Your task to perform on an android device: turn on showing notifications on the lock screen Image 0: 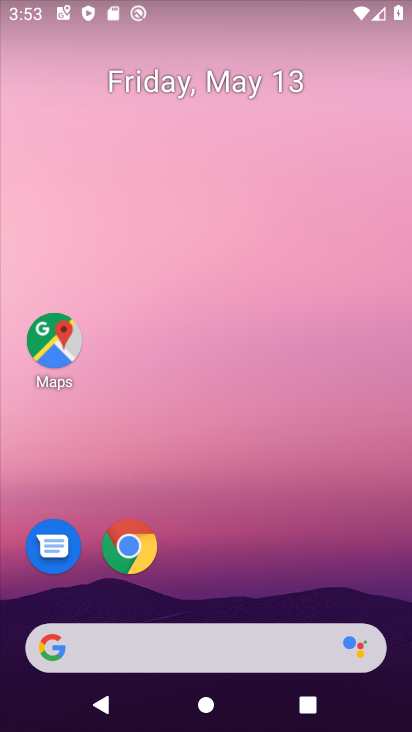
Step 0: drag from (329, 182) to (400, 259)
Your task to perform on an android device: turn on showing notifications on the lock screen Image 1: 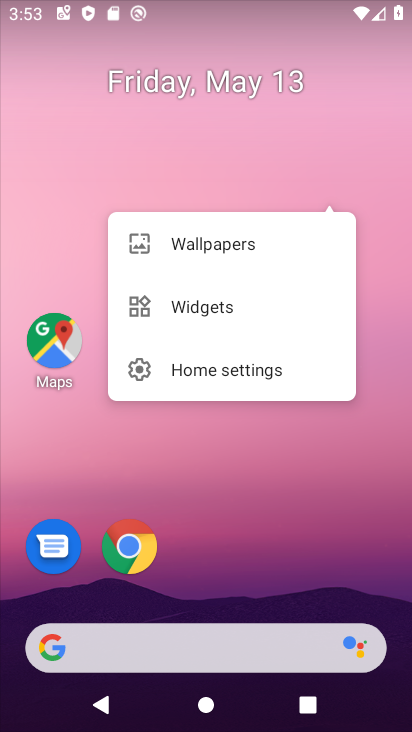
Step 1: click (292, 425)
Your task to perform on an android device: turn on showing notifications on the lock screen Image 2: 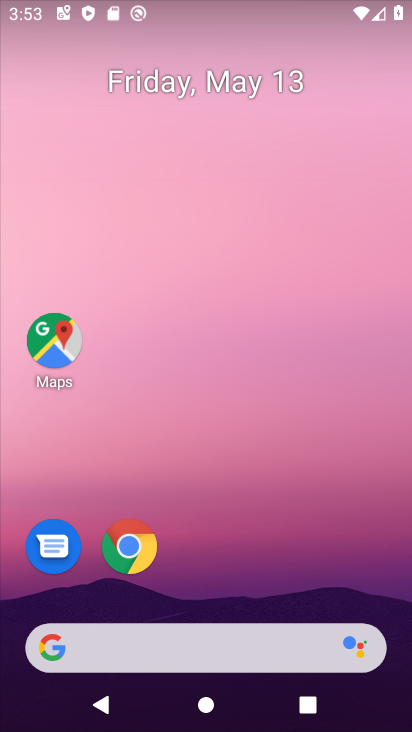
Step 2: drag from (212, 576) to (235, 2)
Your task to perform on an android device: turn on showing notifications on the lock screen Image 3: 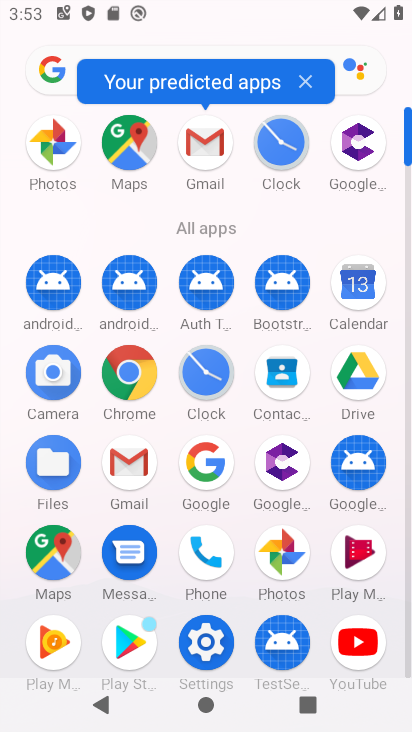
Step 3: click (210, 641)
Your task to perform on an android device: turn on showing notifications on the lock screen Image 4: 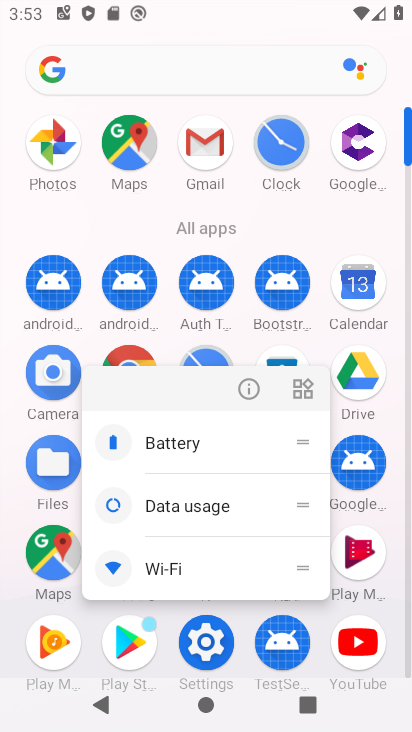
Step 4: click (210, 622)
Your task to perform on an android device: turn on showing notifications on the lock screen Image 5: 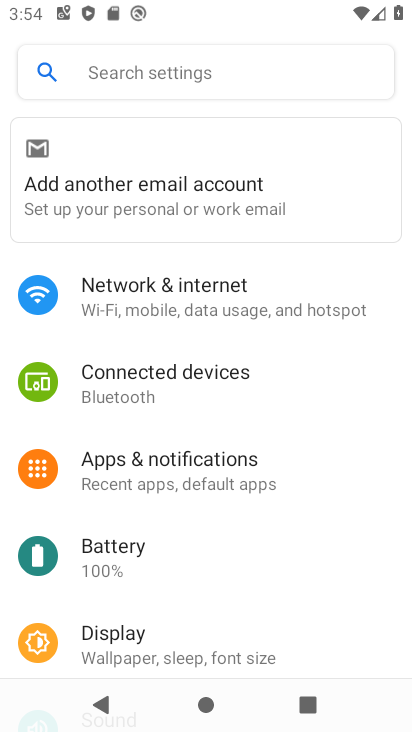
Step 5: click (185, 474)
Your task to perform on an android device: turn on showing notifications on the lock screen Image 6: 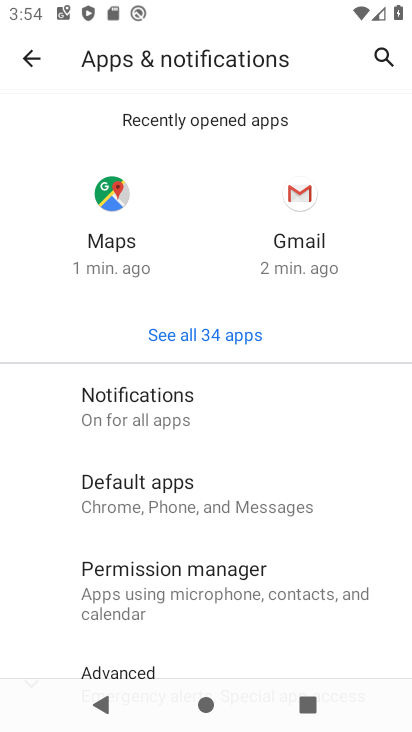
Step 6: click (183, 421)
Your task to perform on an android device: turn on showing notifications on the lock screen Image 7: 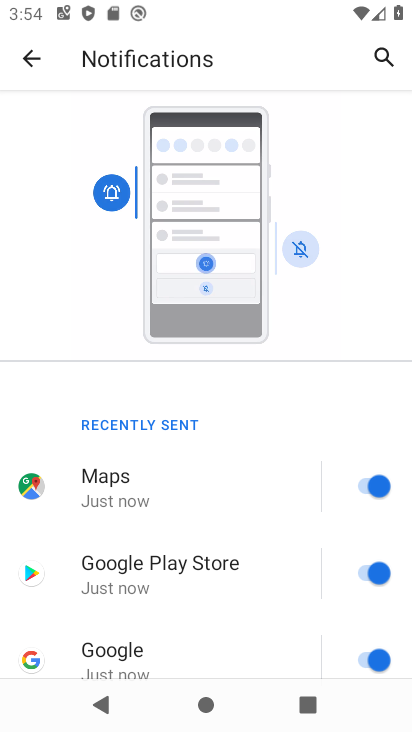
Step 7: drag from (182, 540) to (245, 177)
Your task to perform on an android device: turn on showing notifications on the lock screen Image 8: 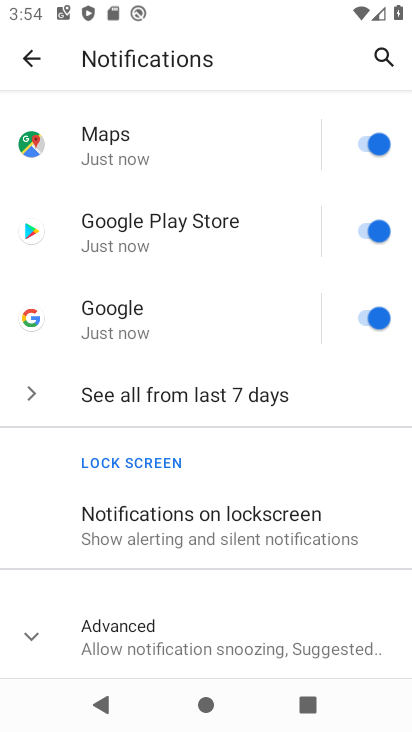
Step 8: click (195, 536)
Your task to perform on an android device: turn on showing notifications on the lock screen Image 9: 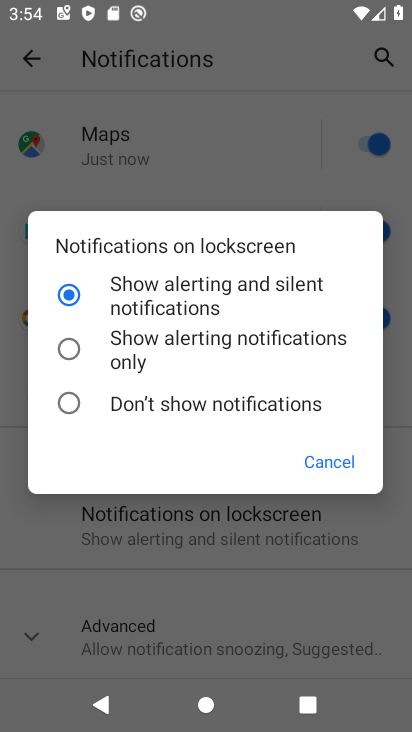
Step 9: task complete